Your task to perform on an android device: Empty the shopping cart on amazon.com. Add "dell alienware" to the cart on amazon.com, then select checkout. Image 0: 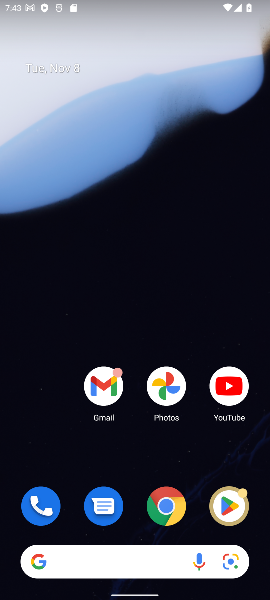
Step 0: drag from (139, 538) to (234, 188)
Your task to perform on an android device: Empty the shopping cart on amazon.com. Add "dell alienware" to the cart on amazon.com, then select checkout. Image 1: 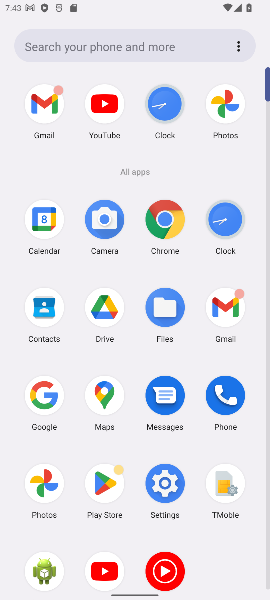
Step 1: click (174, 225)
Your task to perform on an android device: Empty the shopping cart on amazon.com. Add "dell alienware" to the cart on amazon.com, then select checkout. Image 2: 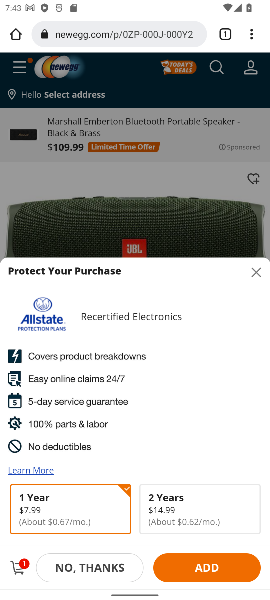
Step 2: click (158, 35)
Your task to perform on an android device: Empty the shopping cart on amazon.com. Add "dell alienware" to the cart on amazon.com, then select checkout. Image 3: 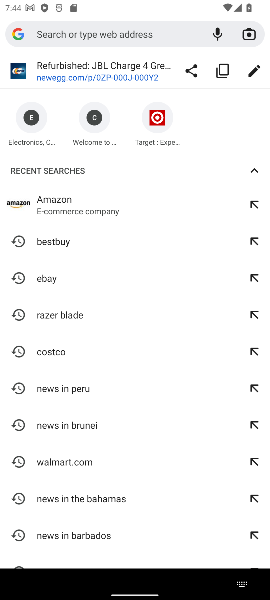
Step 3: type "amazon.com"
Your task to perform on an android device: Empty the shopping cart on amazon.com. Add "dell alienware" to the cart on amazon.com, then select checkout. Image 4: 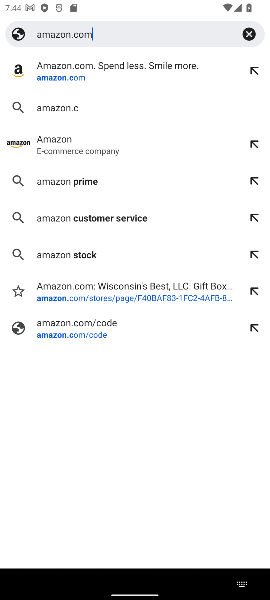
Step 4: press enter
Your task to perform on an android device: Empty the shopping cart on amazon.com. Add "dell alienware" to the cart on amazon.com, then select checkout. Image 5: 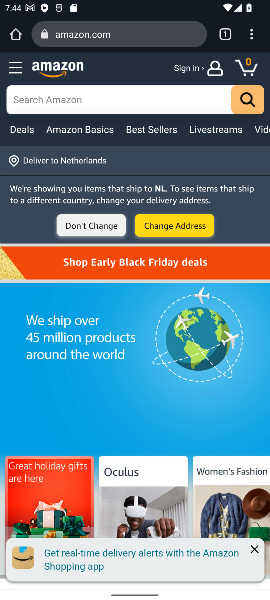
Step 5: click (110, 95)
Your task to perform on an android device: Empty the shopping cart on amazon.com. Add "dell alienware" to the cart on amazon.com, then select checkout. Image 6: 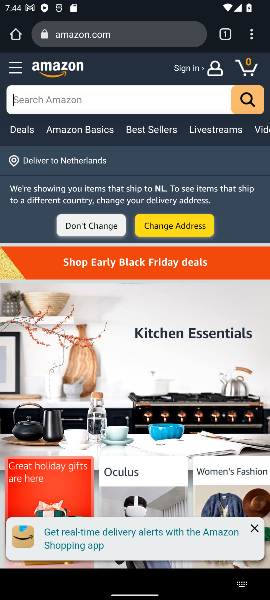
Step 6: type "dell alienware"
Your task to perform on an android device: Empty the shopping cart on amazon.com. Add "dell alienware" to the cart on amazon.com, then select checkout. Image 7: 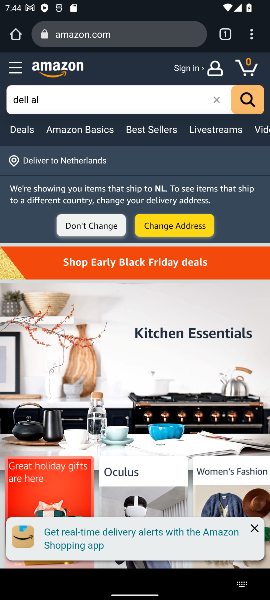
Step 7: press enter
Your task to perform on an android device: Empty the shopping cart on amazon.com. Add "dell alienware" to the cart on amazon.com, then select checkout. Image 8: 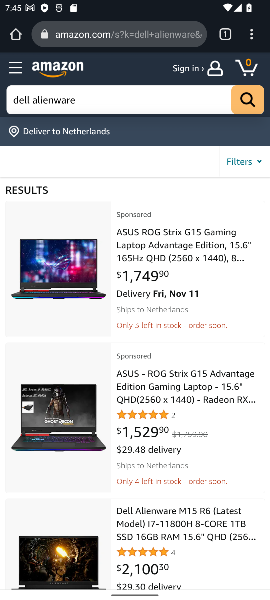
Step 8: click (148, 244)
Your task to perform on an android device: Empty the shopping cart on amazon.com. Add "dell alienware" to the cart on amazon.com, then select checkout. Image 9: 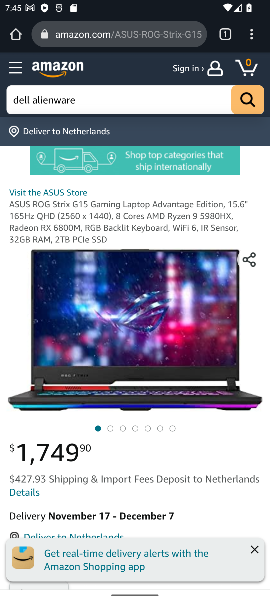
Step 9: drag from (172, 457) to (204, 143)
Your task to perform on an android device: Empty the shopping cart on amazon.com. Add "dell alienware" to the cart on amazon.com, then select checkout. Image 10: 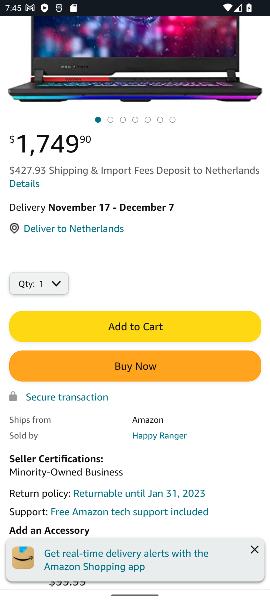
Step 10: click (166, 326)
Your task to perform on an android device: Empty the shopping cart on amazon.com. Add "dell alienware" to the cart on amazon.com, then select checkout. Image 11: 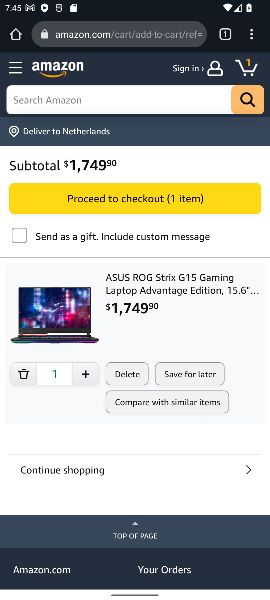
Step 11: task complete